Your task to perform on an android device: Go to Android settings Image 0: 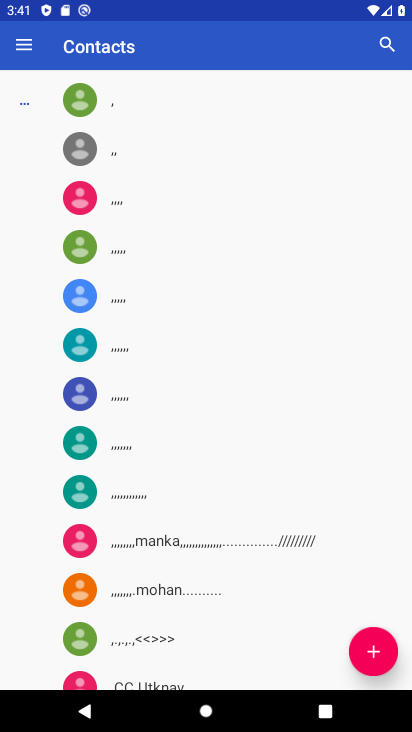
Step 0: press home button
Your task to perform on an android device: Go to Android settings Image 1: 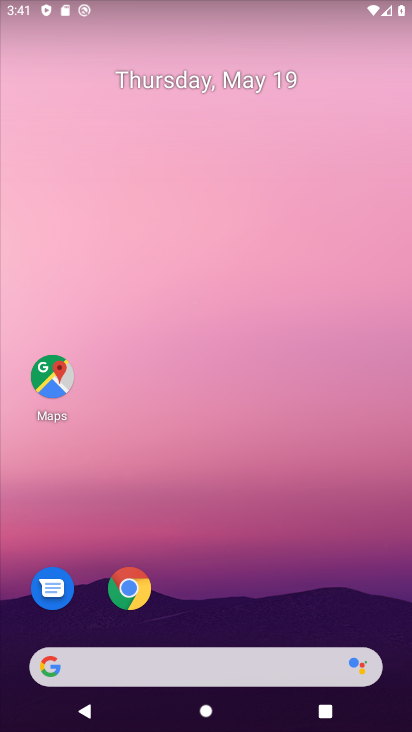
Step 1: drag from (206, 595) to (265, 134)
Your task to perform on an android device: Go to Android settings Image 2: 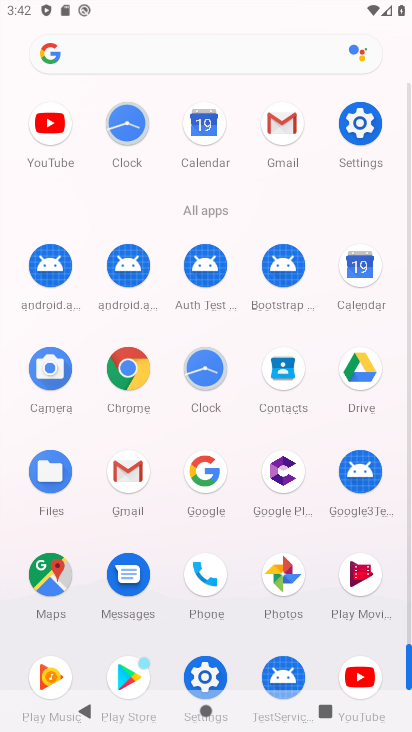
Step 2: click (358, 134)
Your task to perform on an android device: Go to Android settings Image 3: 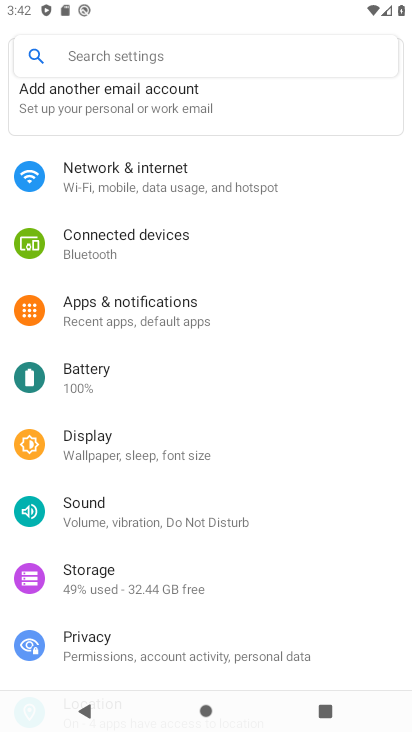
Step 3: drag from (164, 556) to (218, 329)
Your task to perform on an android device: Go to Android settings Image 4: 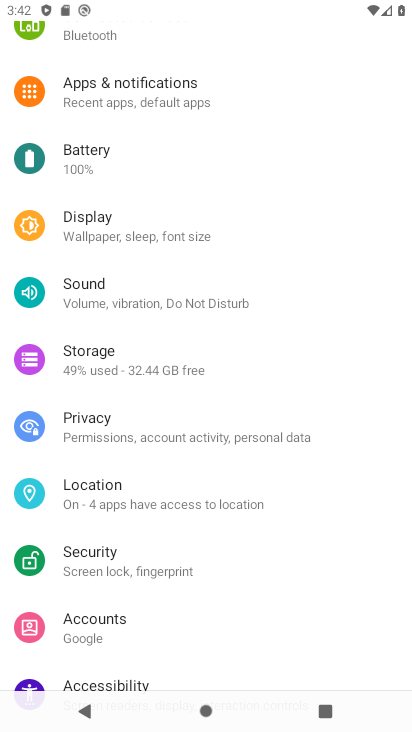
Step 4: drag from (175, 663) to (204, 427)
Your task to perform on an android device: Go to Android settings Image 5: 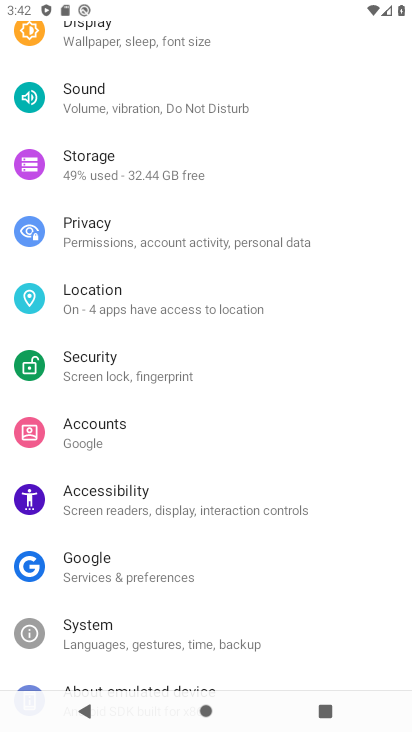
Step 5: drag from (130, 651) to (170, 412)
Your task to perform on an android device: Go to Android settings Image 6: 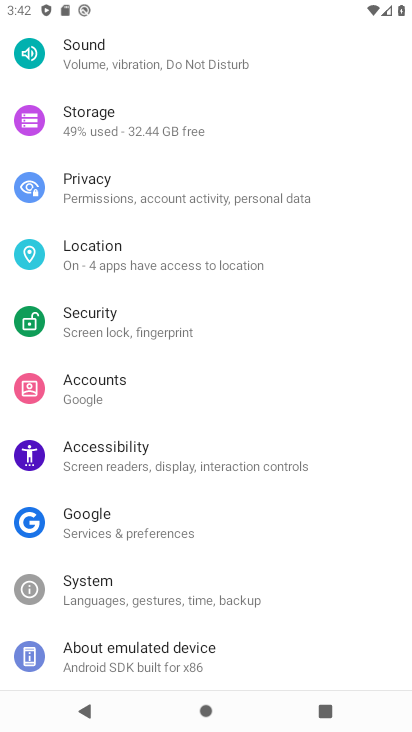
Step 6: click (141, 654)
Your task to perform on an android device: Go to Android settings Image 7: 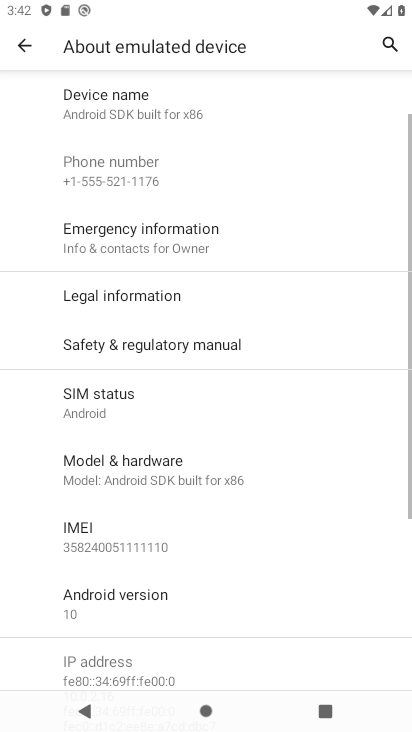
Step 7: click (155, 610)
Your task to perform on an android device: Go to Android settings Image 8: 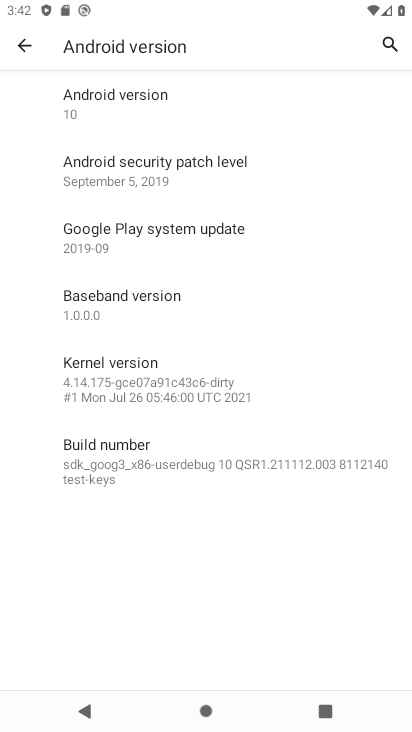
Step 8: task complete